Your task to perform on an android device: delete location history Image 0: 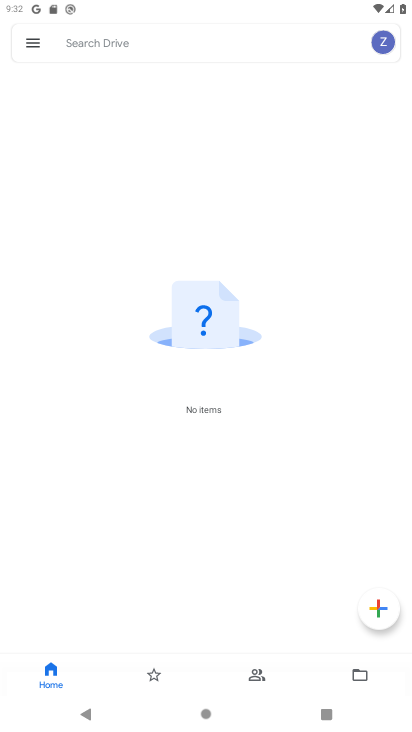
Step 0: press home button
Your task to perform on an android device: delete location history Image 1: 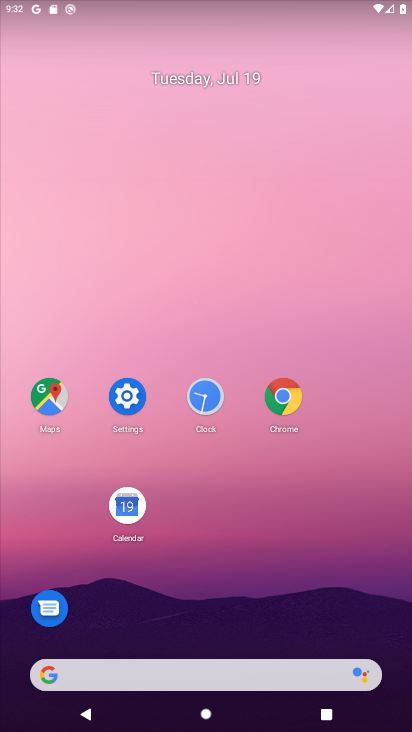
Step 1: drag from (396, 685) to (369, 107)
Your task to perform on an android device: delete location history Image 2: 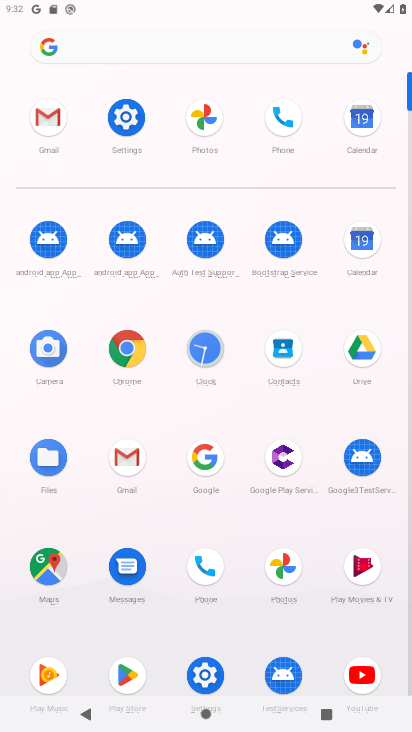
Step 2: click (50, 575)
Your task to perform on an android device: delete location history Image 3: 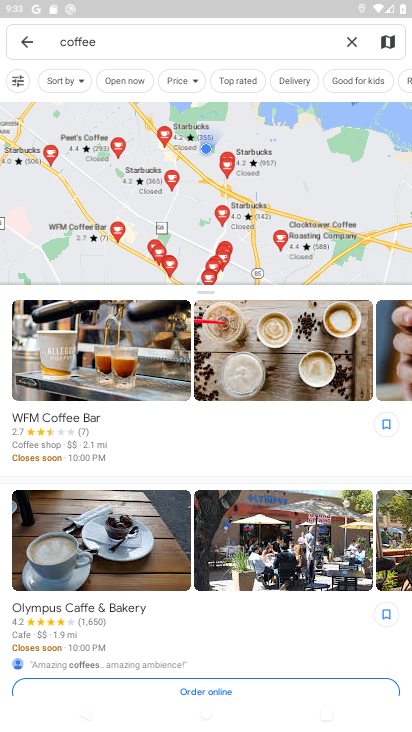
Step 3: click (27, 46)
Your task to perform on an android device: delete location history Image 4: 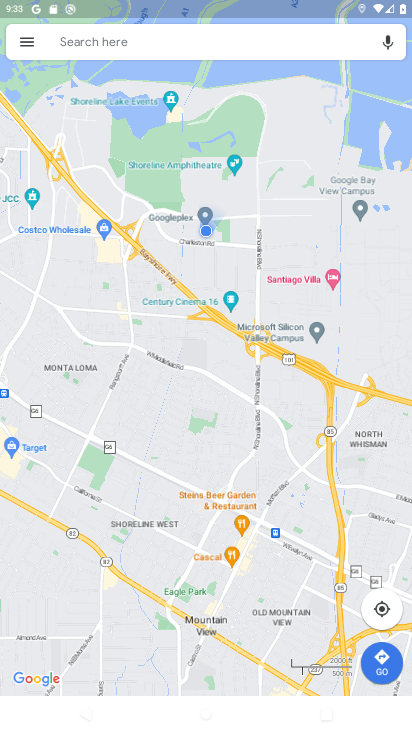
Step 4: click (27, 42)
Your task to perform on an android device: delete location history Image 5: 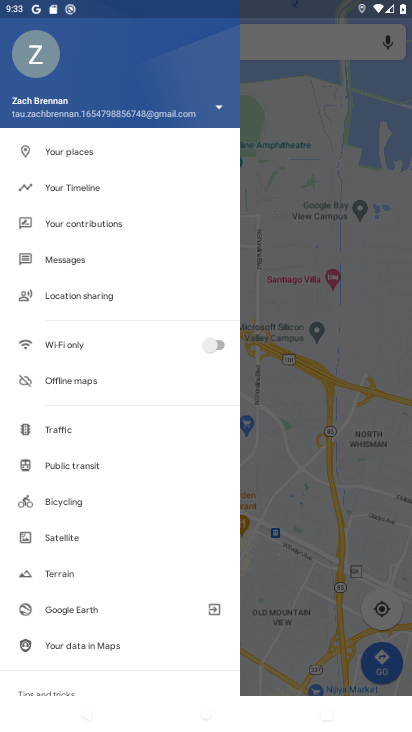
Step 5: click (58, 188)
Your task to perform on an android device: delete location history Image 6: 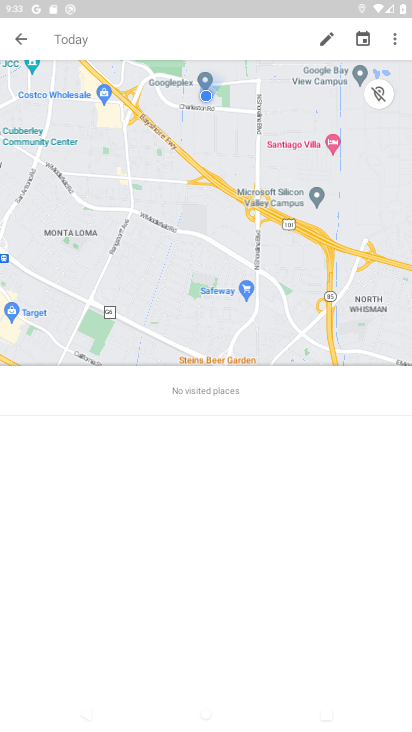
Step 6: click (394, 35)
Your task to perform on an android device: delete location history Image 7: 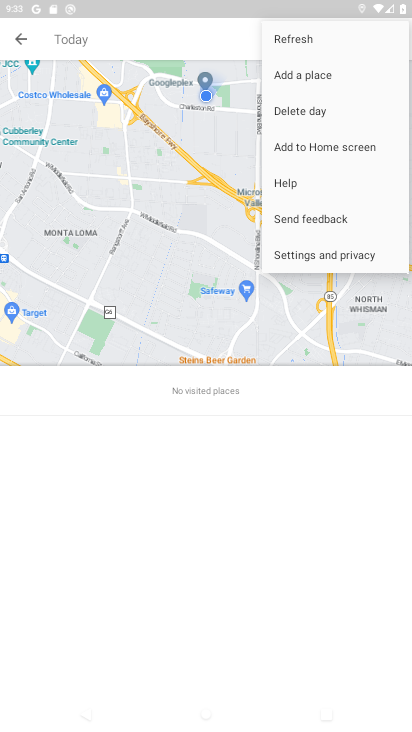
Step 7: click (294, 249)
Your task to perform on an android device: delete location history Image 8: 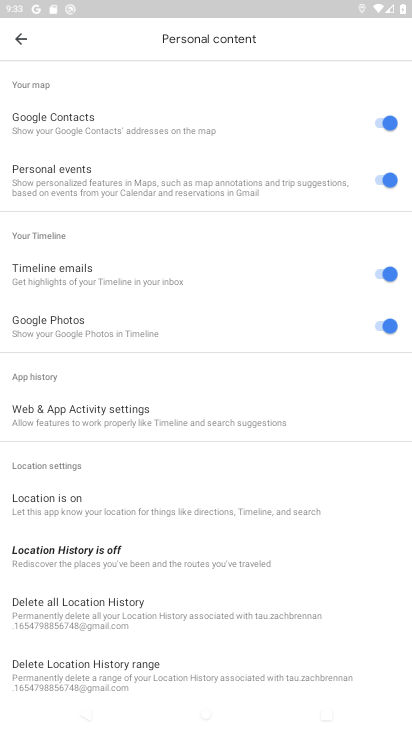
Step 8: click (47, 606)
Your task to perform on an android device: delete location history Image 9: 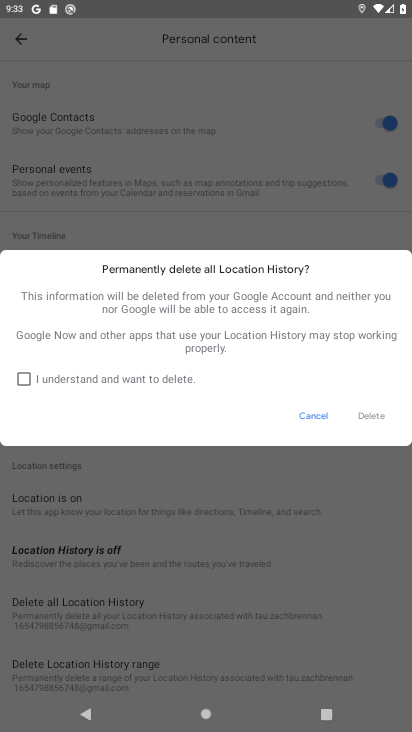
Step 9: click (356, 413)
Your task to perform on an android device: delete location history Image 10: 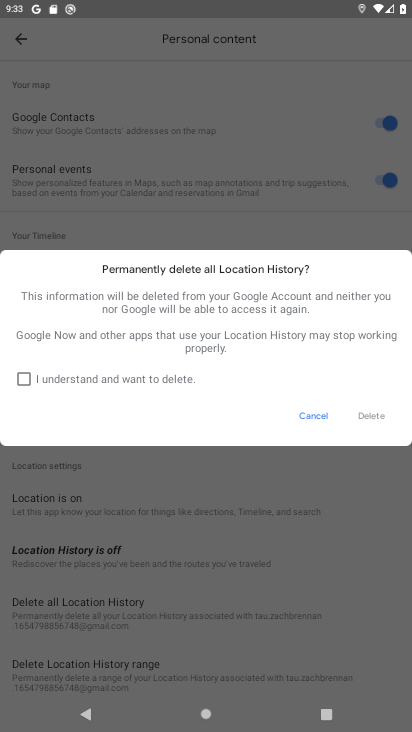
Step 10: click (24, 370)
Your task to perform on an android device: delete location history Image 11: 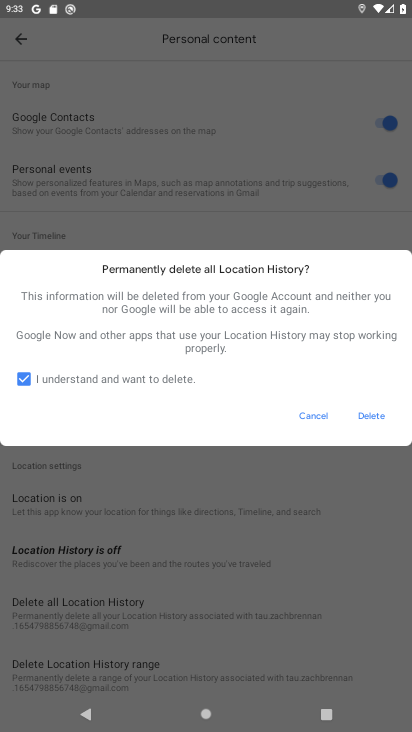
Step 11: click (378, 415)
Your task to perform on an android device: delete location history Image 12: 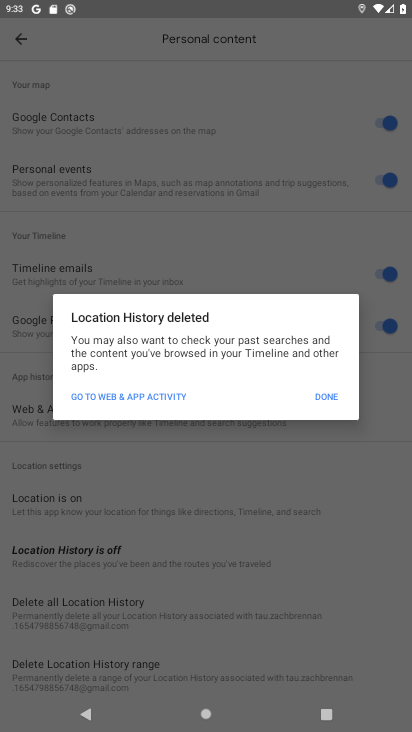
Step 12: click (311, 395)
Your task to perform on an android device: delete location history Image 13: 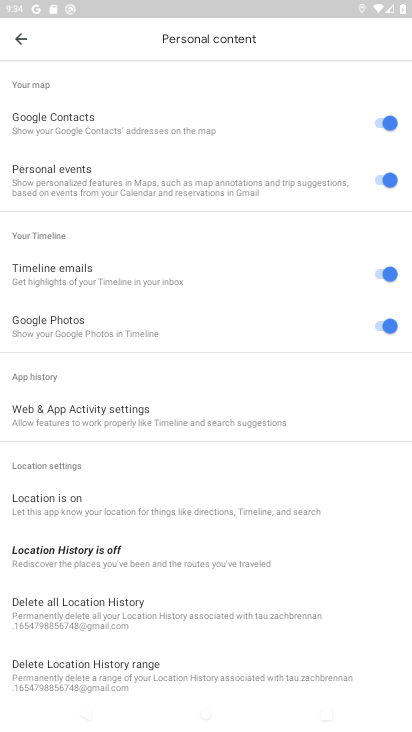
Step 13: task complete